Your task to perform on an android device: check out phone information Image 0: 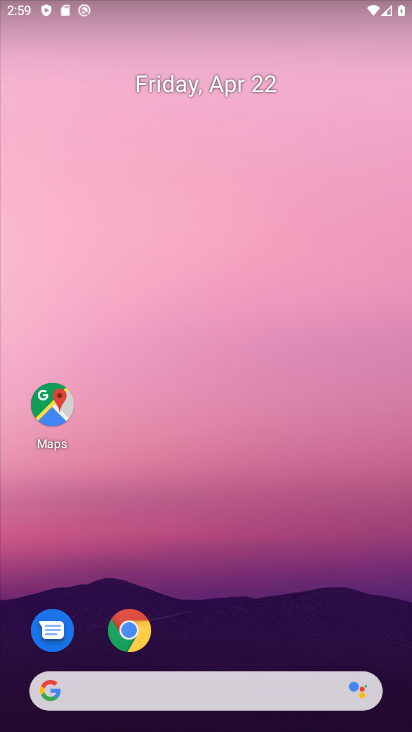
Step 0: drag from (213, 637) to (258, 27)
Your task to perform on an android device: check out phone information Image 1: 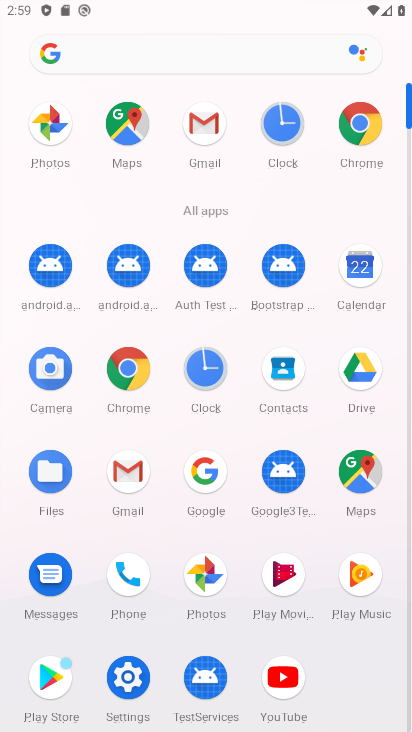
Step 1: click (133, 678)
Your task to perform on an android device: check out phone information Image 2: 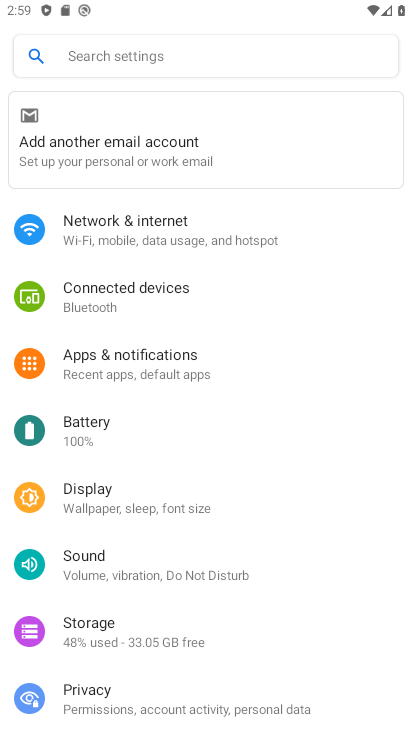
Step 2: drag from (151, 549) to (212, 227)
Your task to perform on an android device: check out phone information Image 3: 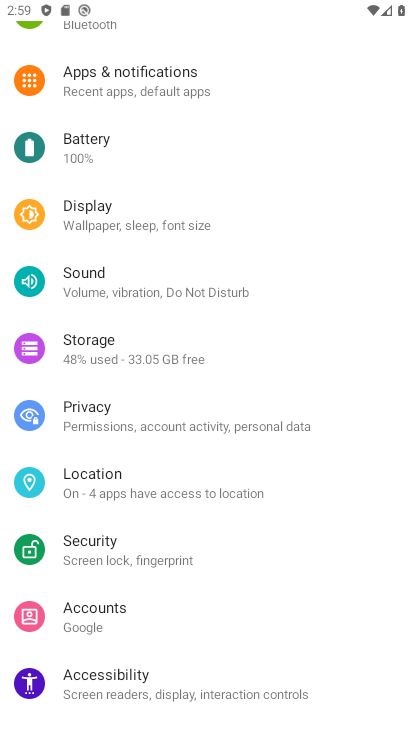
Step 3: drag from (126, 586) to (164, 376)
Your task to perform on an android device: check out phone information Image 4: 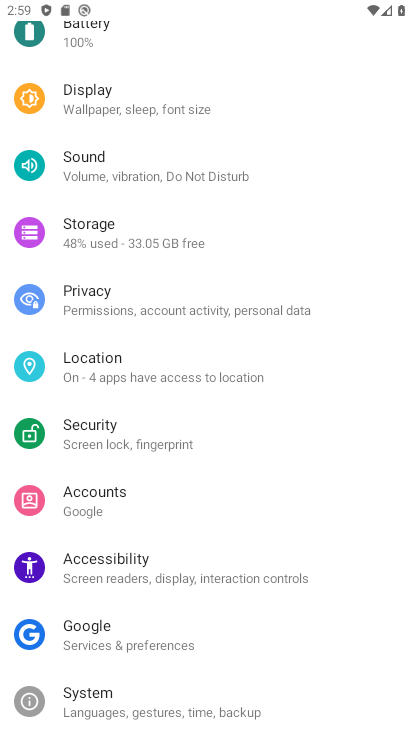
Step 4: drag from (132, 621) to (211, 32)
Your task to perform on an android device: check out phone information Image 5: 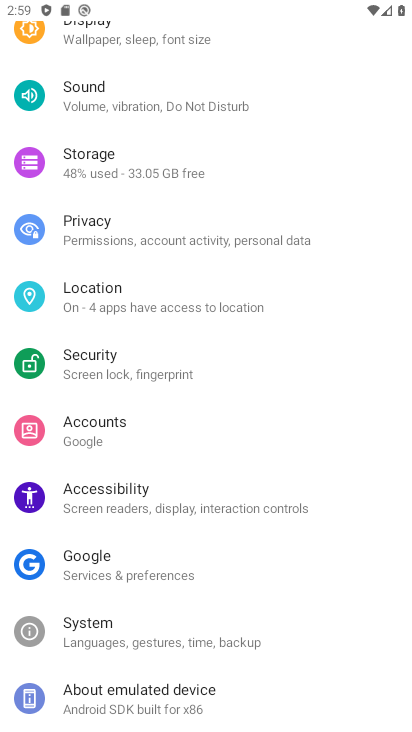
Step 5: click (130, 710)
Your task to perform on an android device: check out phone information Image 6: 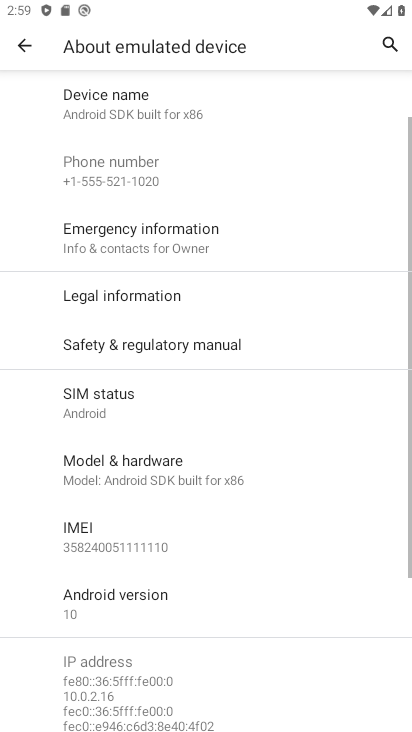
Step 6: task complete